Your task to perform on an android device: Open settings Image 0: 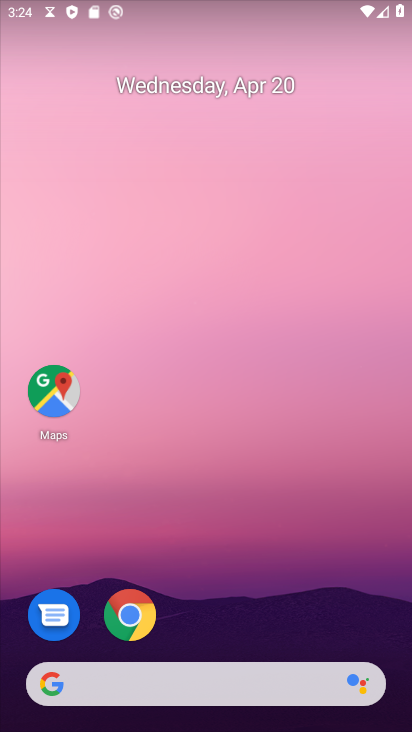
Step 0: drag from (282, 616) to (265, 79)
Your task to perform on an android device: Open settings Image 1: 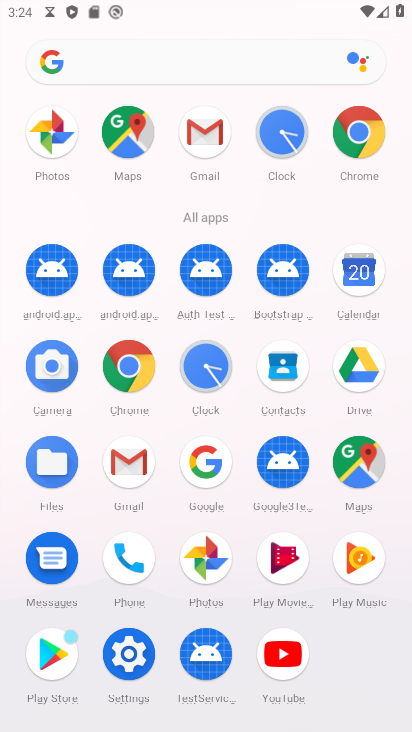
Step 1: click (140, 655)
Your task to perform on an android device: Open settings Image 2: 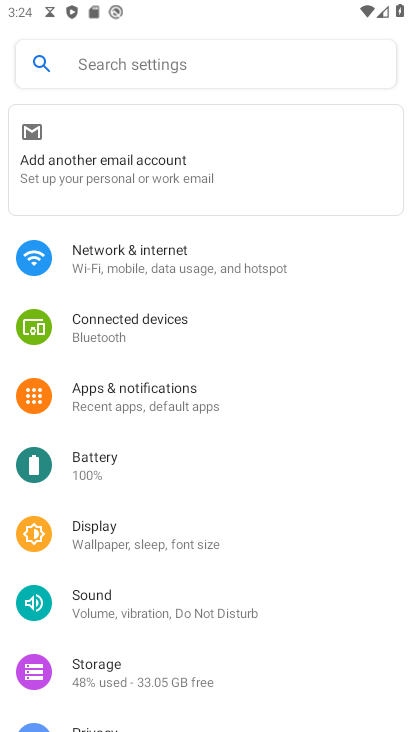
Step 2: task complete